Your task to perform on an android device: toggle priority inbox in the gmail app Image 0: 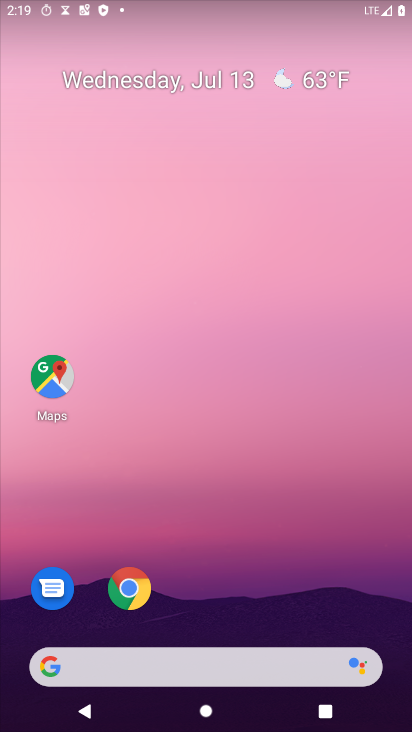
Step 0: drag from (231, 663) to (265, 72)
Your task to perform on an android device: toggle priority inbox in the gmail app Image 1: 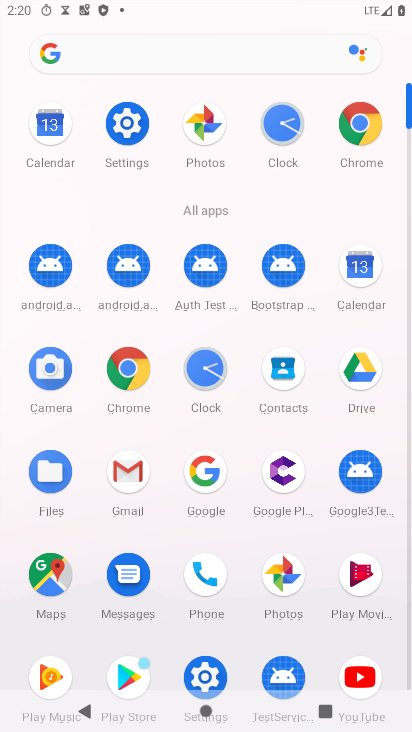
Step 1: click (131, 471)
Your task to perform on an android device: toggle priority inbox in the gmail app Image 2: 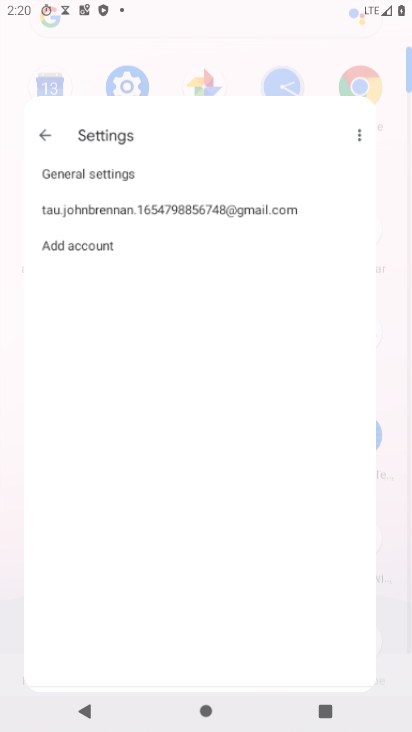
Step 2: click (131, 471)
Your task to perform on an android device: toggle priority inbox in the gmail app Image 3: 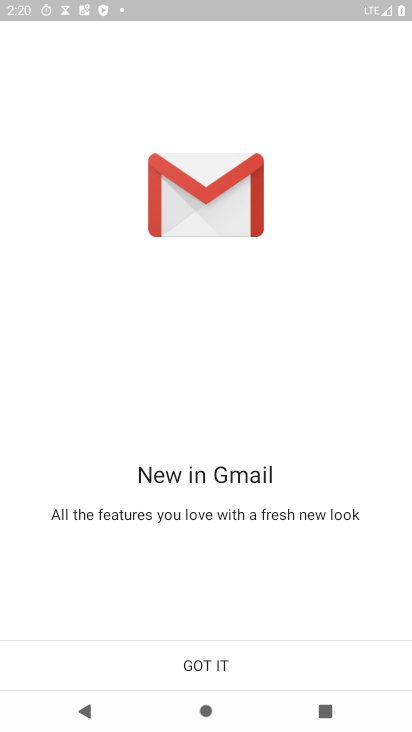
Step 3: click (131, 471)
Your task to perform on an android device: toggle priority inbox in the gmail app Image 4: 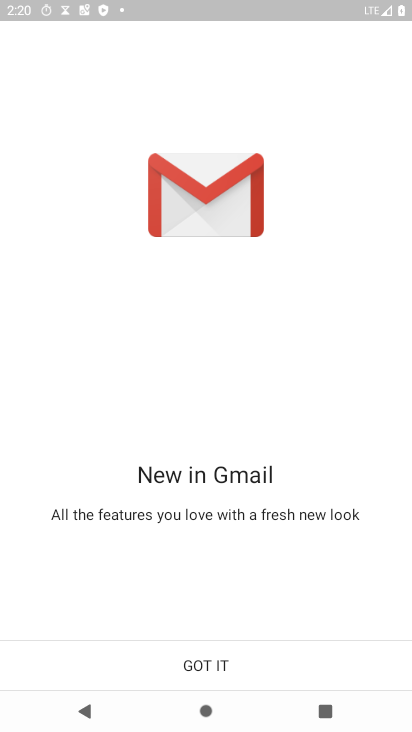
Step 4: click (208, 655)
Your task to perform on an android device: toggle priority inbox in the gmail app Image 5: 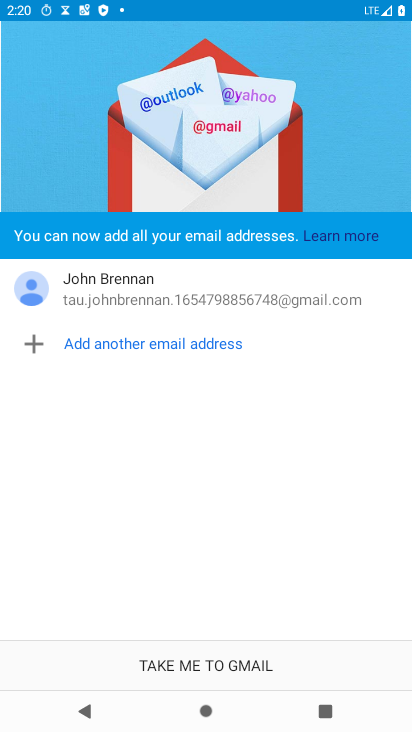
Step 5: click (222, 656)
Your task to perform on an android device: toggle priority inbox in the gmail app Image 6: 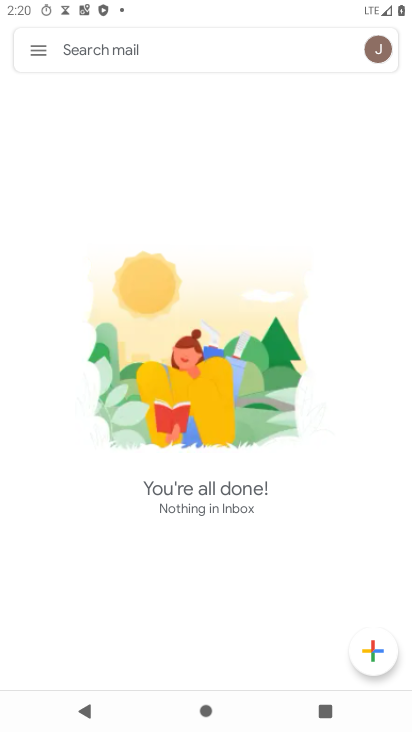
Step 6: click (40, 59)
Your task to perform on an android device: toggle priority inbox in the gmail app Image 7: 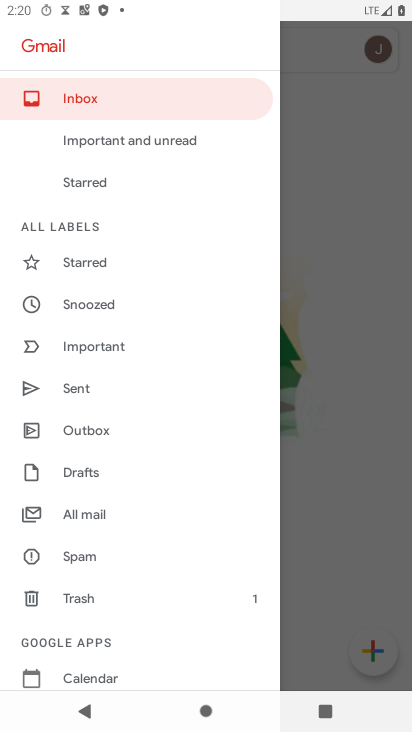
Step 7: drag from (104, 519) to (104, 279)
Your task to perform on an android device: toggle priority inbox in the gmail app Image 8: 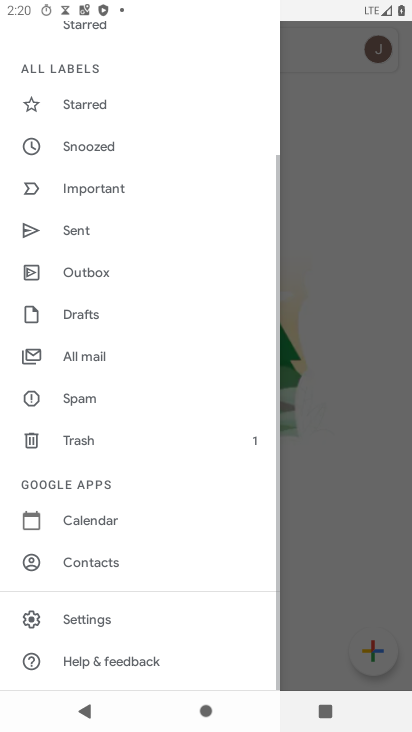
Step 8: click (94, 616)
Your task to perform on an android device: toggle priority inbox in the gmail app Image 9: 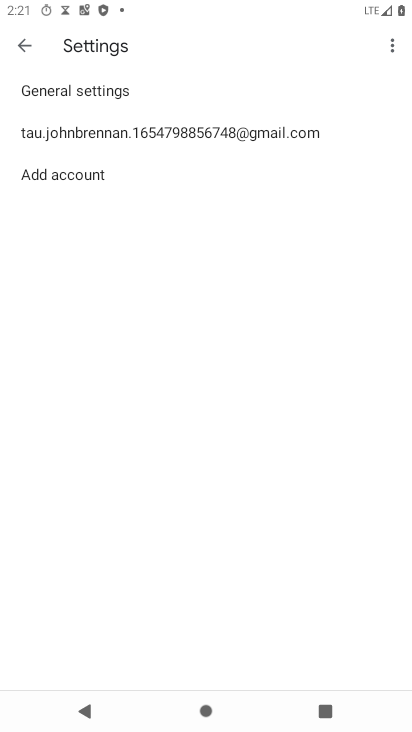
Step 9: click (79, 146)
Your task to perform on an android device: toggle priority inbox in the gmail app Image 10: 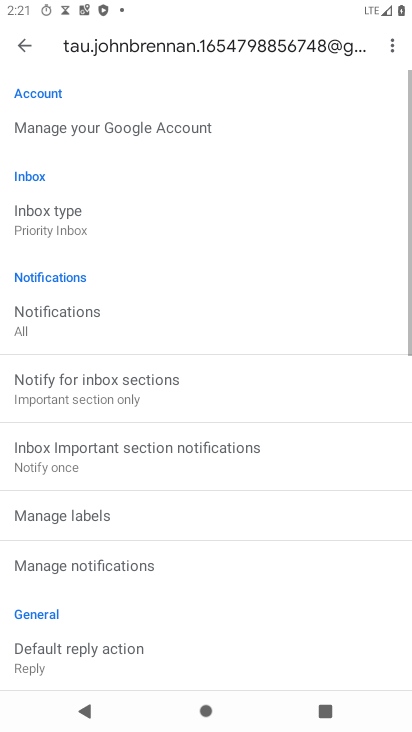
Step 10: click (82, 212)
Your task to perform on an android device: toggle priority inbox in the gmail app Image 11: 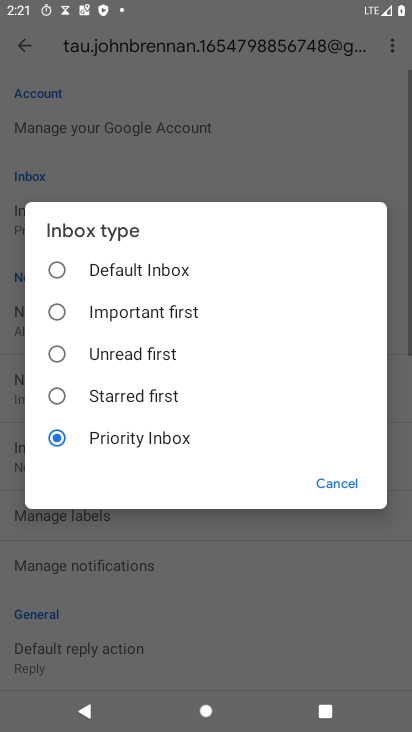
Step 11: click (100, 275)
Your task to perform on an android device: toggle priority inbox in the gmail app Image 12: 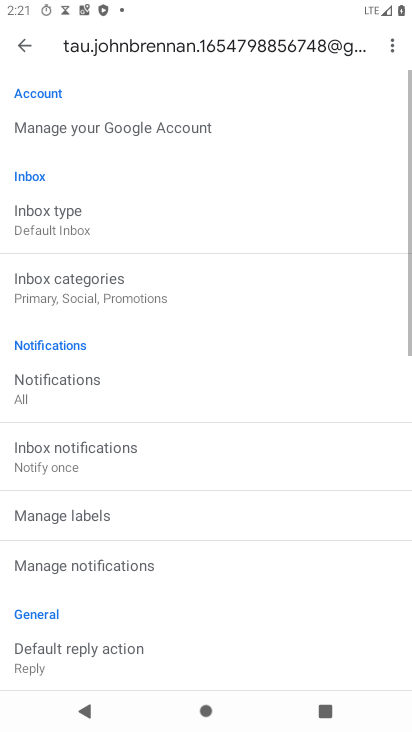
Step 12: task complete